Your task to perform on an android device: Open calendar and show me the first week of next month Image 0: 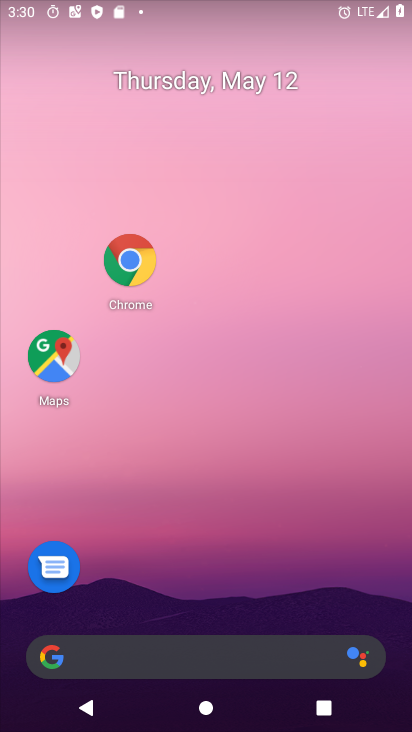
Step 0: drag from (176, 619) to (226, 236)
Your task to perform on an android device: Open calendar and show me the first week of next month Image 1: 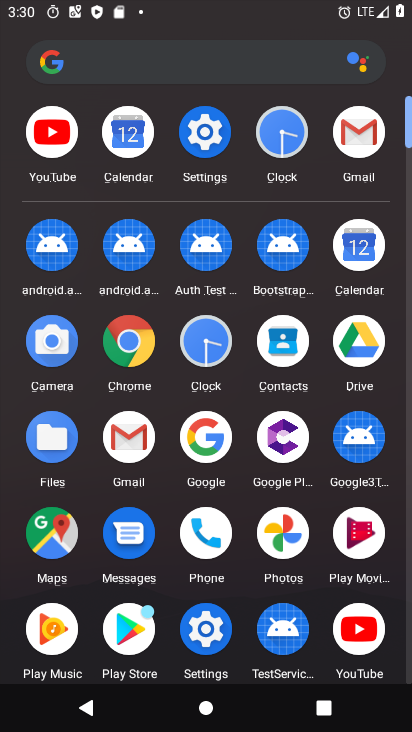
Step 1: click (351, 243)
Your task to perform on an android device: Open calendar and show me the first week of next month Image 2: 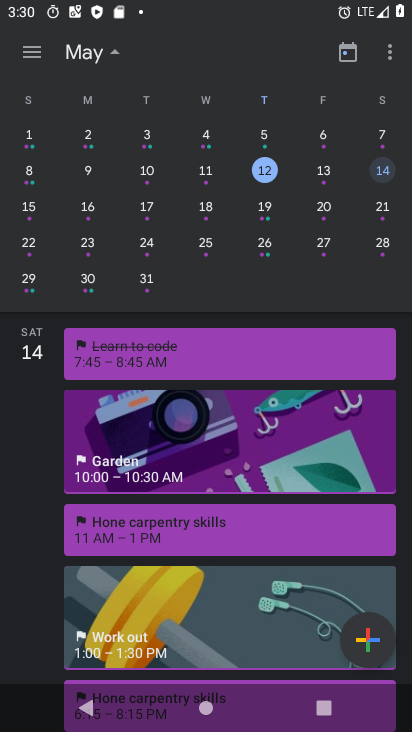
Step 2: drag from (384, 227) to (67, 230)
Your task to perform on an android device: Open calendar and show me the first week of next month Image 3: 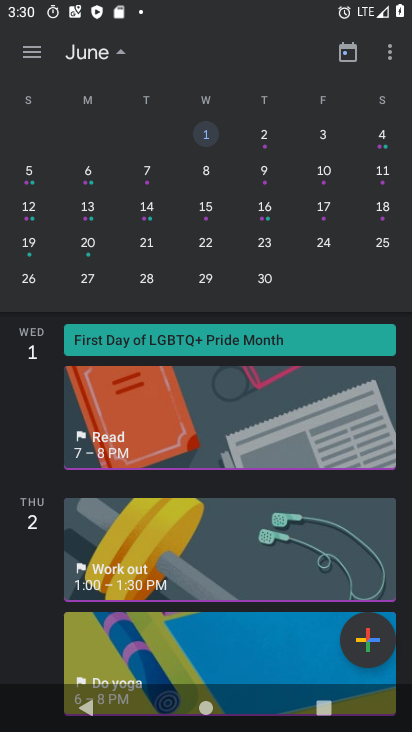
Step 3: click (216, 135)
Your task to perform on an android device: Open calendar and show me the first week of next month Image 4: 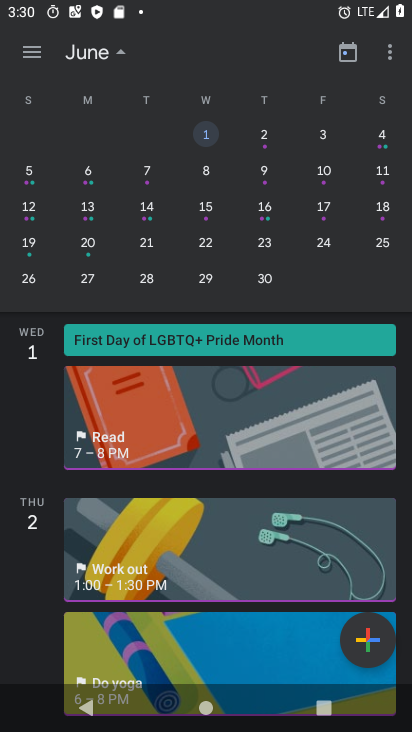
Step 4: task complete